Your task to perform on an android device: Clear all items from cart on ebay.com. Search for "usb-c to usb-b" on ebay.com, select the first entry, and add it to the cart. Image 0: 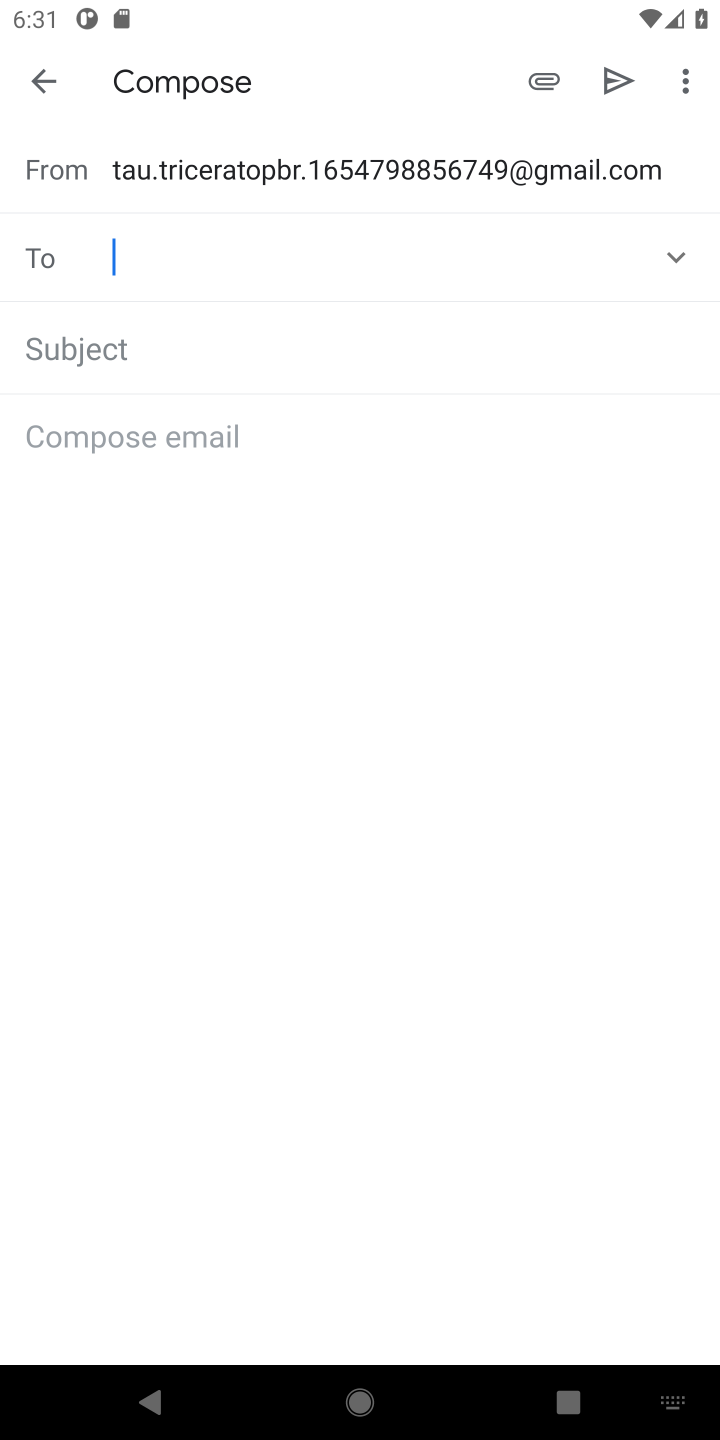
Step 0: press home button
Your task to perform on an android device: Clear all items from cart on ebay.com. Search for "usb-c to usb-b" on ebay.com, select the first entry, and add it to the cart. Image 1: 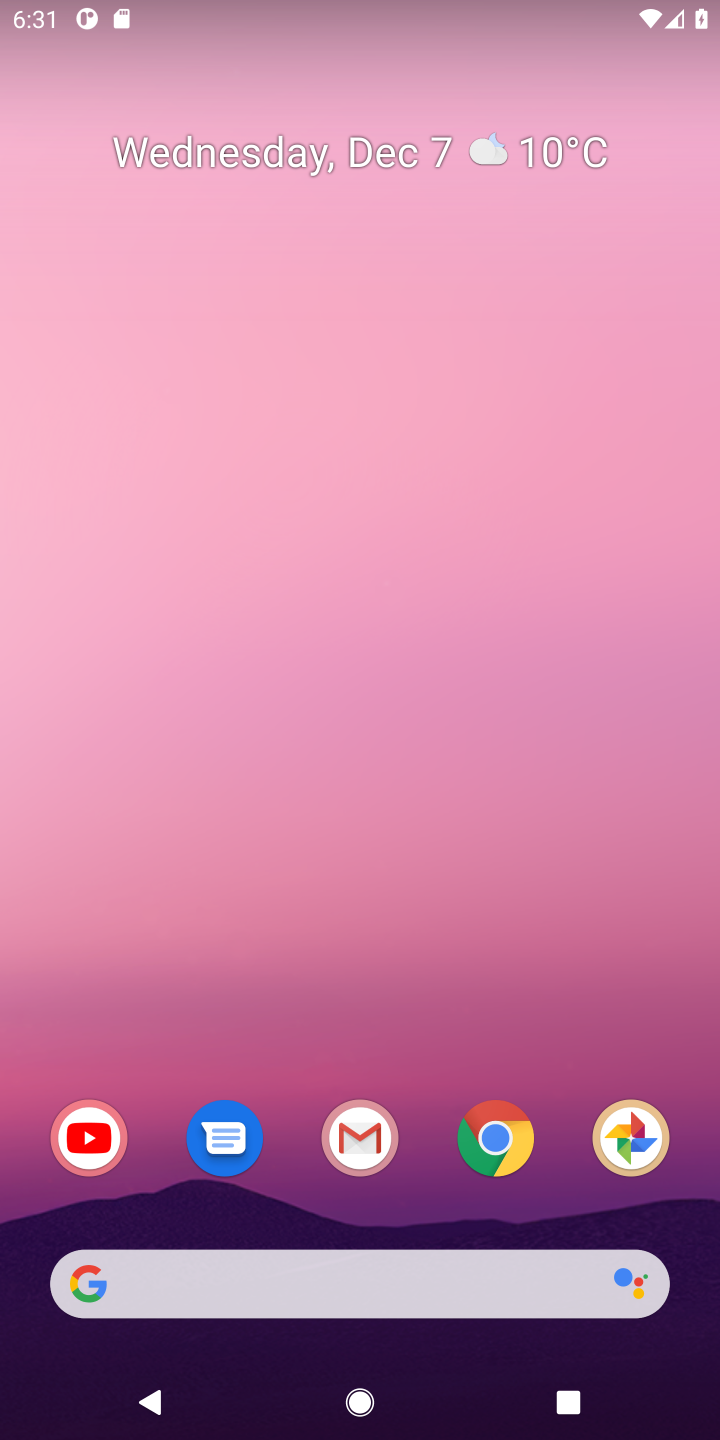
Step 1: click (187, 1290)
Your task to perform on an android device: Clear all items from cart on ebay.com. Search for "usb-c to usb-b" on ebay.com, select the first entry, and add it to the cart. Image 2: 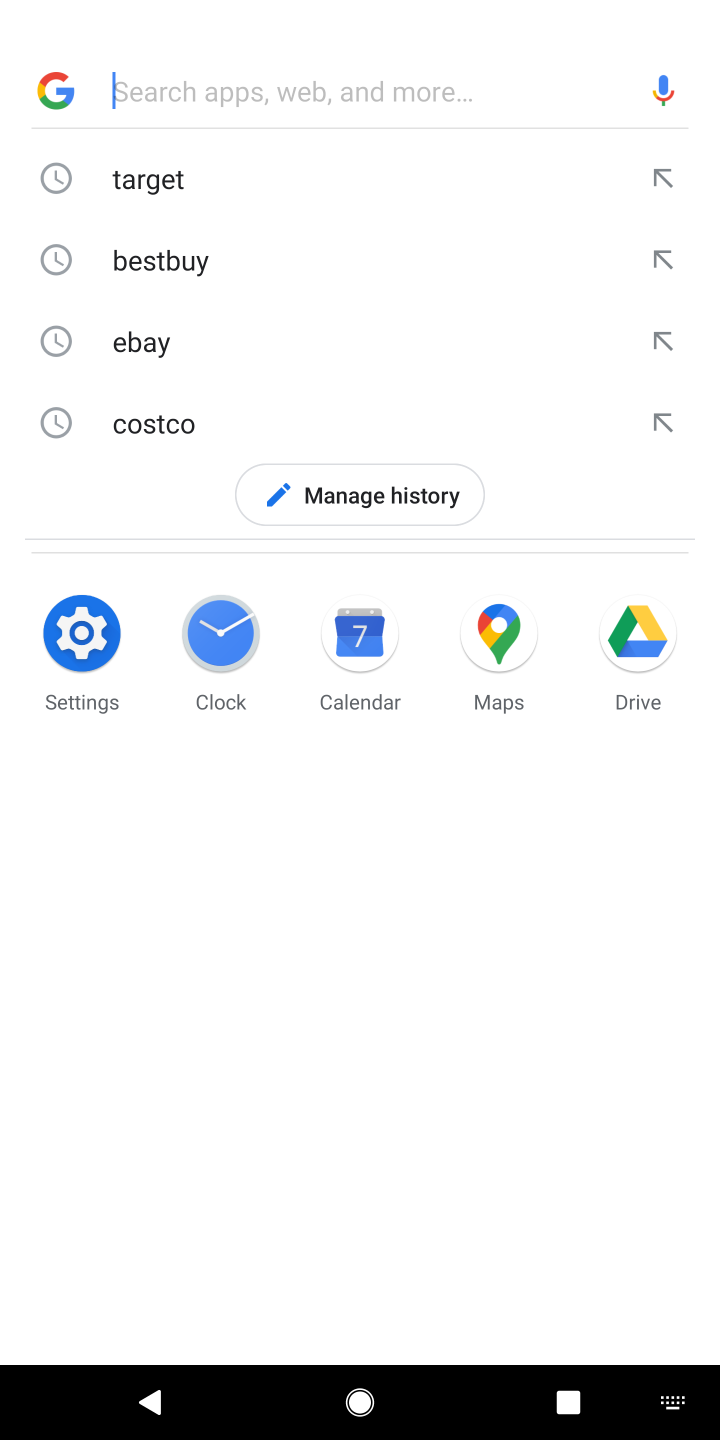
Step 2: type "ebay.com"
Your task to perform on an android device: Clear all items from cart on ebay.com. Search for "usb-c to usb-b" on ebay.com, select the first entry, and add it to the cart. Image 3: 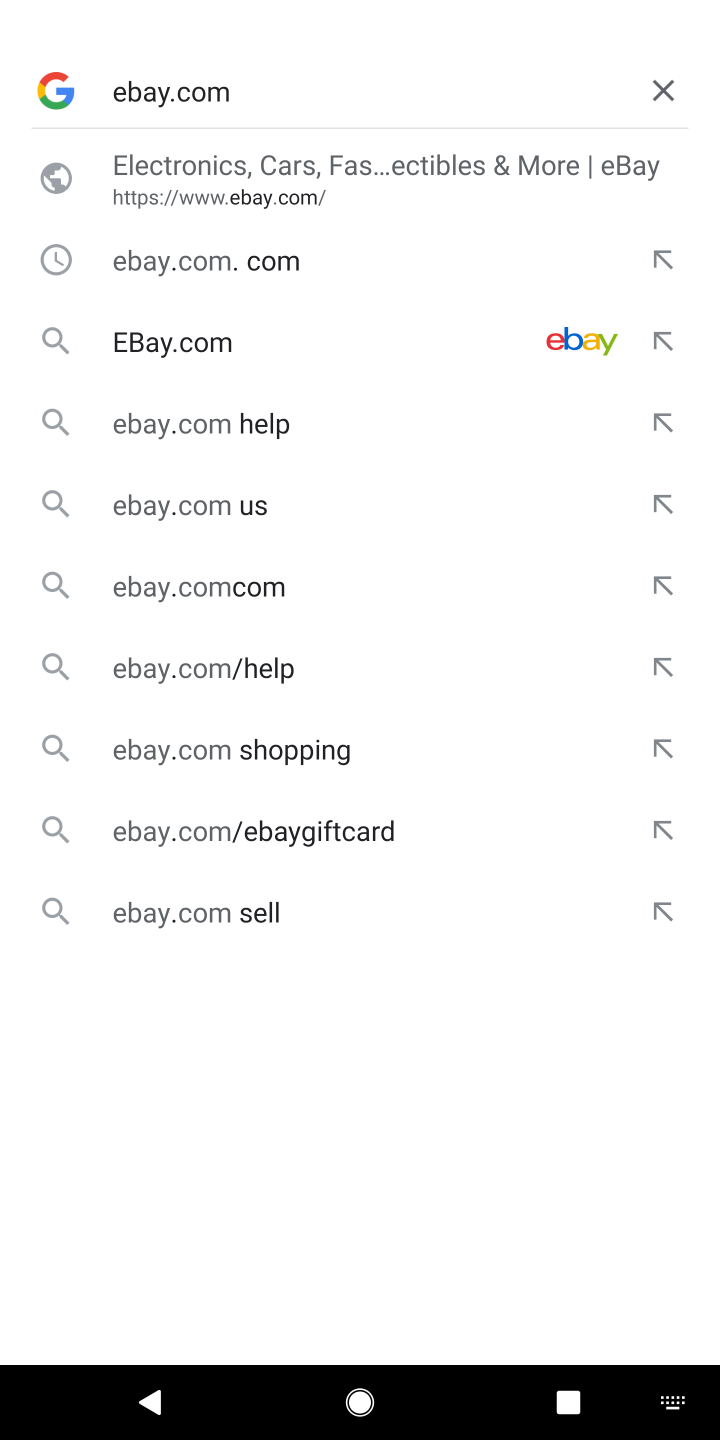
Step 3: press enter
Your task to perform on an android device: Clear all items from cart on ebay.com. Search for "usb-c to usb-b" on ebay.com, select the first entry, and add it to the cart. Image 4: 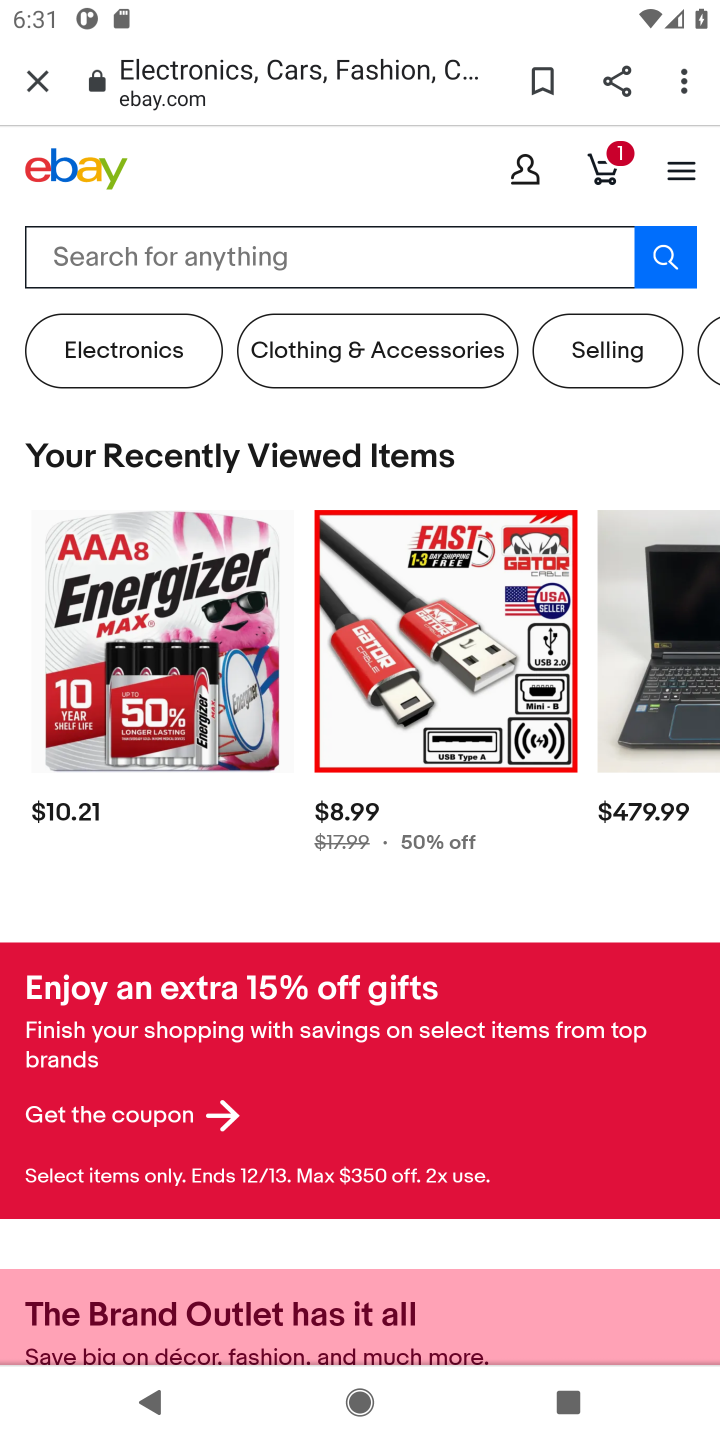
Step 4: click (610, 158)
Your task to perform on an android device: Clear all items from cart on ebay.com. Search for "usb-c to usb-b" on ebay.com, select the first entry, and add it to the cart. Image 5: 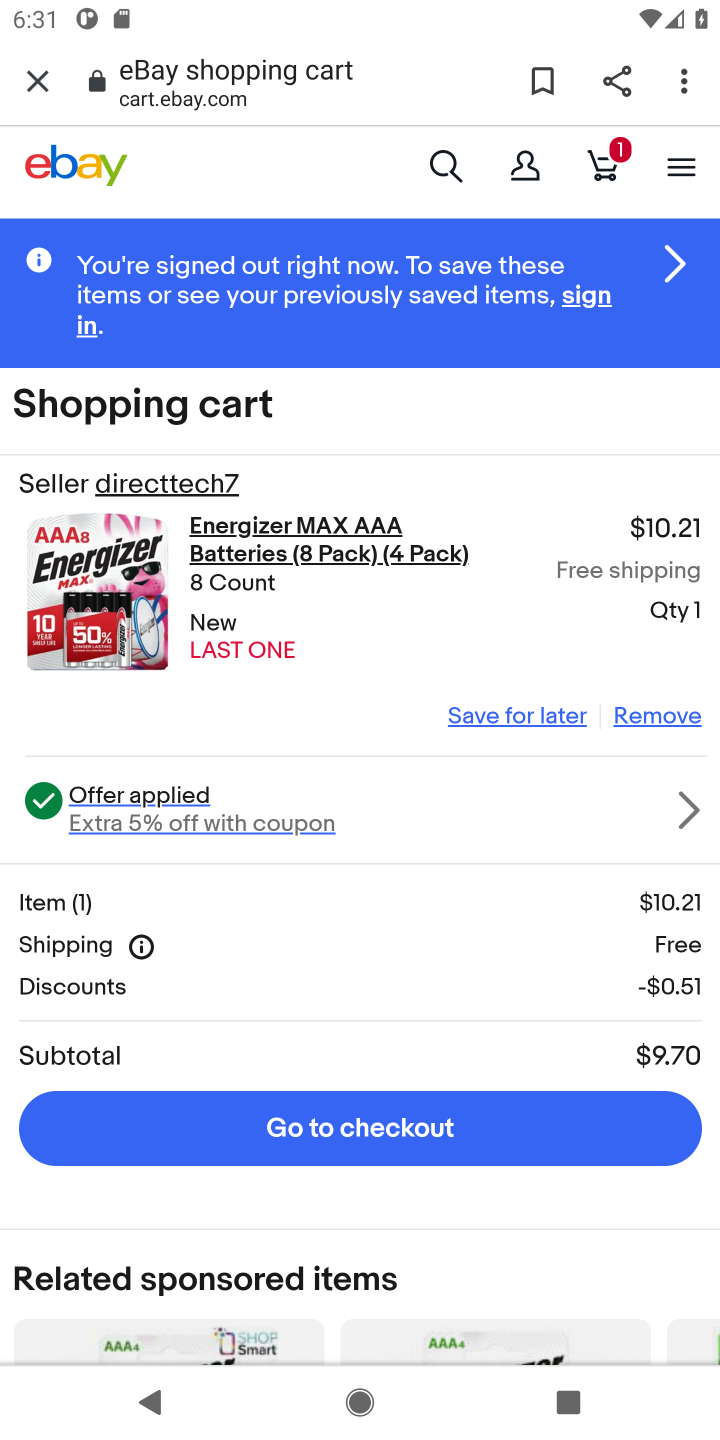
Step 5: click (655, 718)
Your task to perform on an android device: Clear all items from cart on ebay.com. Search for "usb-c to usb-b" on ebay.com, select the first entry, and add it to the cart. Image 6: 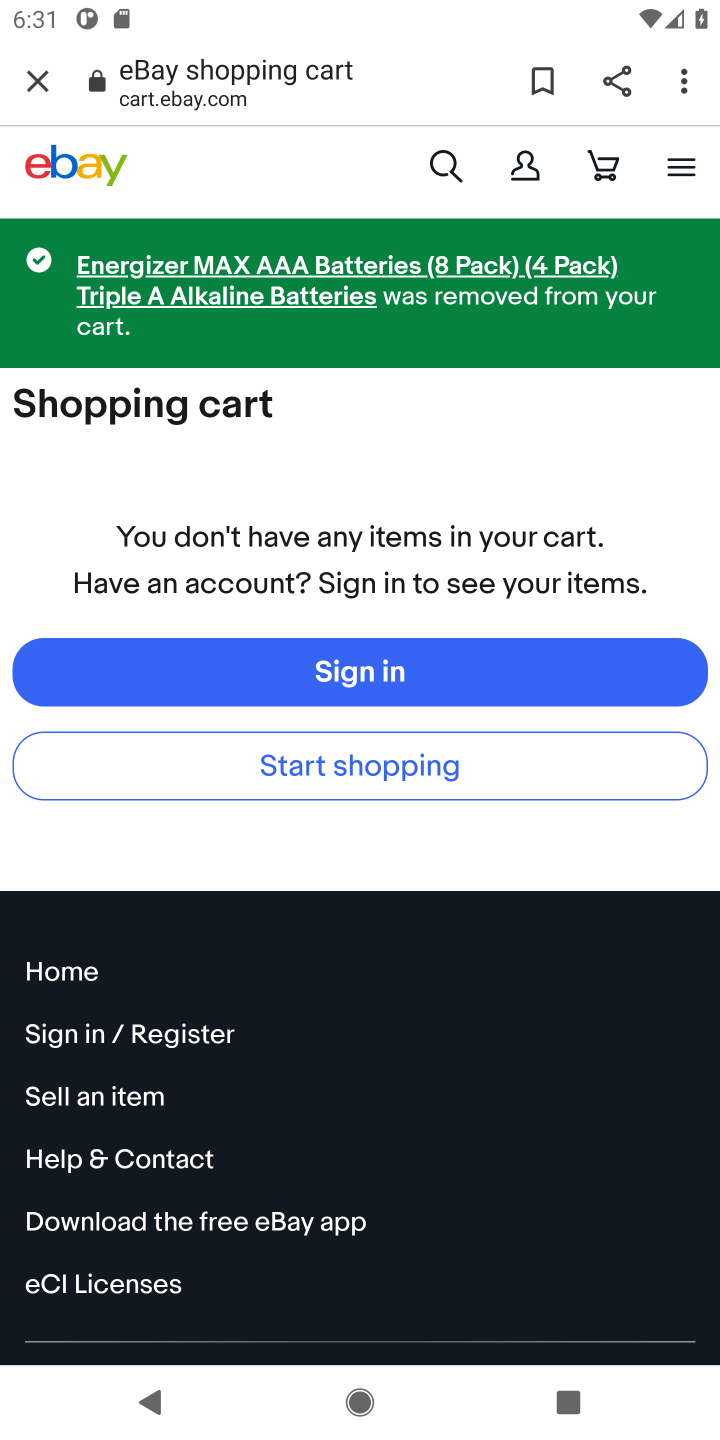
Step 6: click (444, 163)
Your task to perform on an android device: Clear all items from cart on ebay.com. Search for "usb-c to usb-b" on ebay.com, select the first entry, and add it to the cart. Image 7: 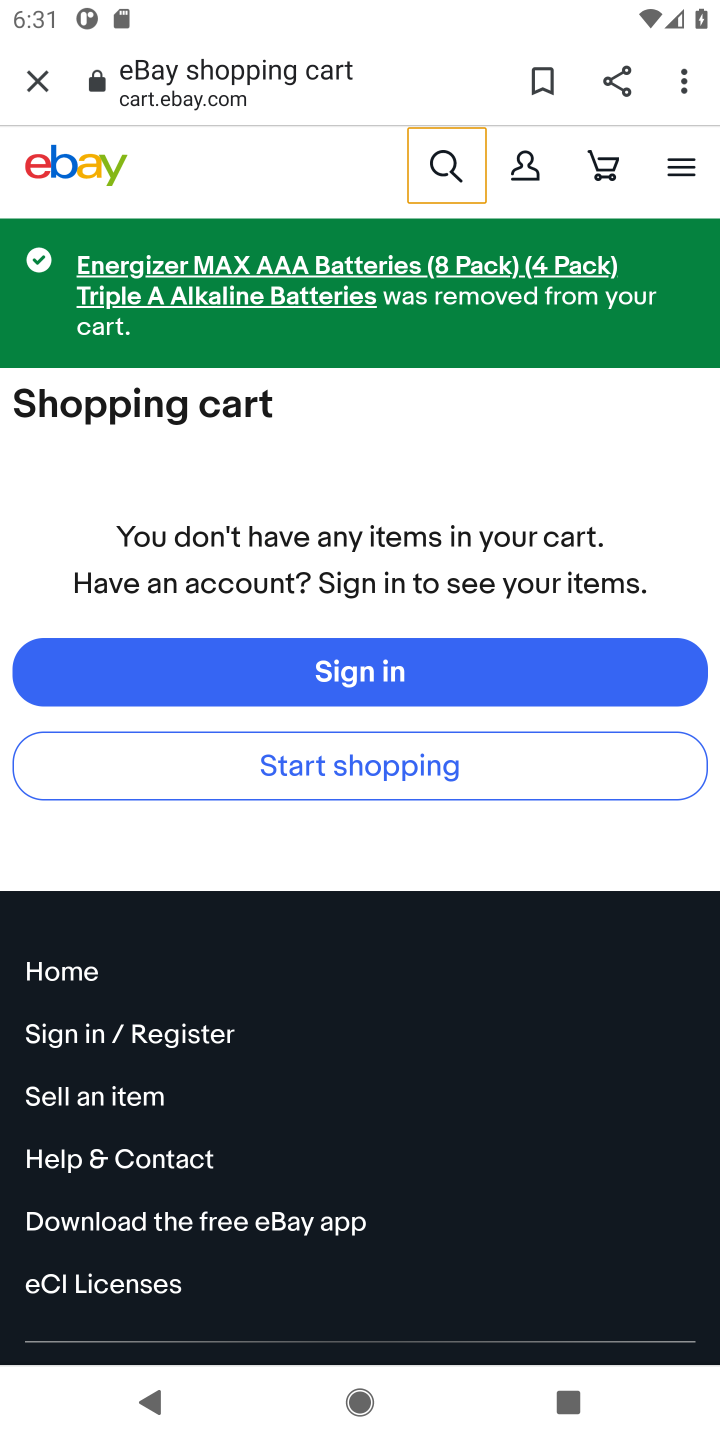
Step 7: click (440, 162)
Your task to perform on an android device: Clear all items from cart on ebay.com. Search for "usb-c to usb-b" on ebay.com, select the first entry, and add it to the cart. Image 8: 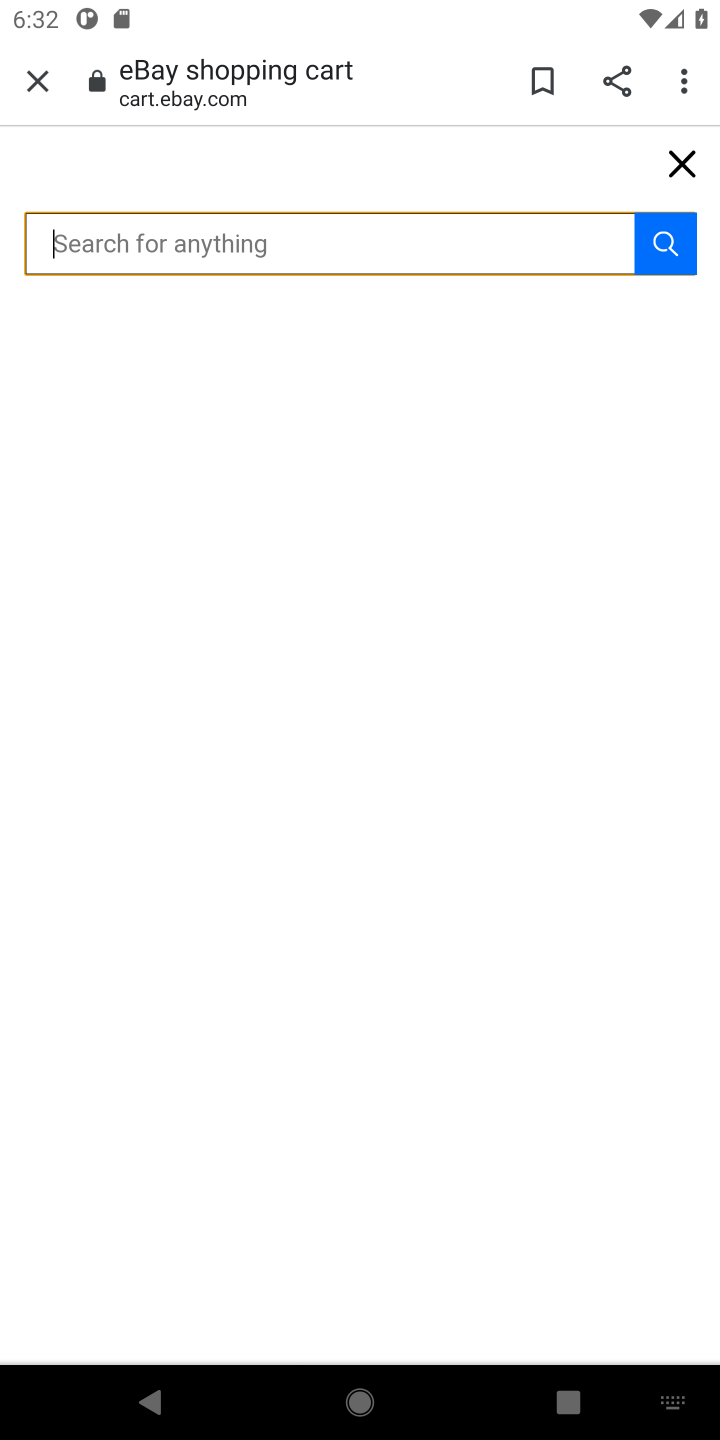
Step 8: type "usb-c to usb-b"
Your task to perform on an android device: Clear all items from cart on ebay.com. Search for "usb-c to usb-b" on ebay.com, select the first entry, and add it to the cart. Image 9: 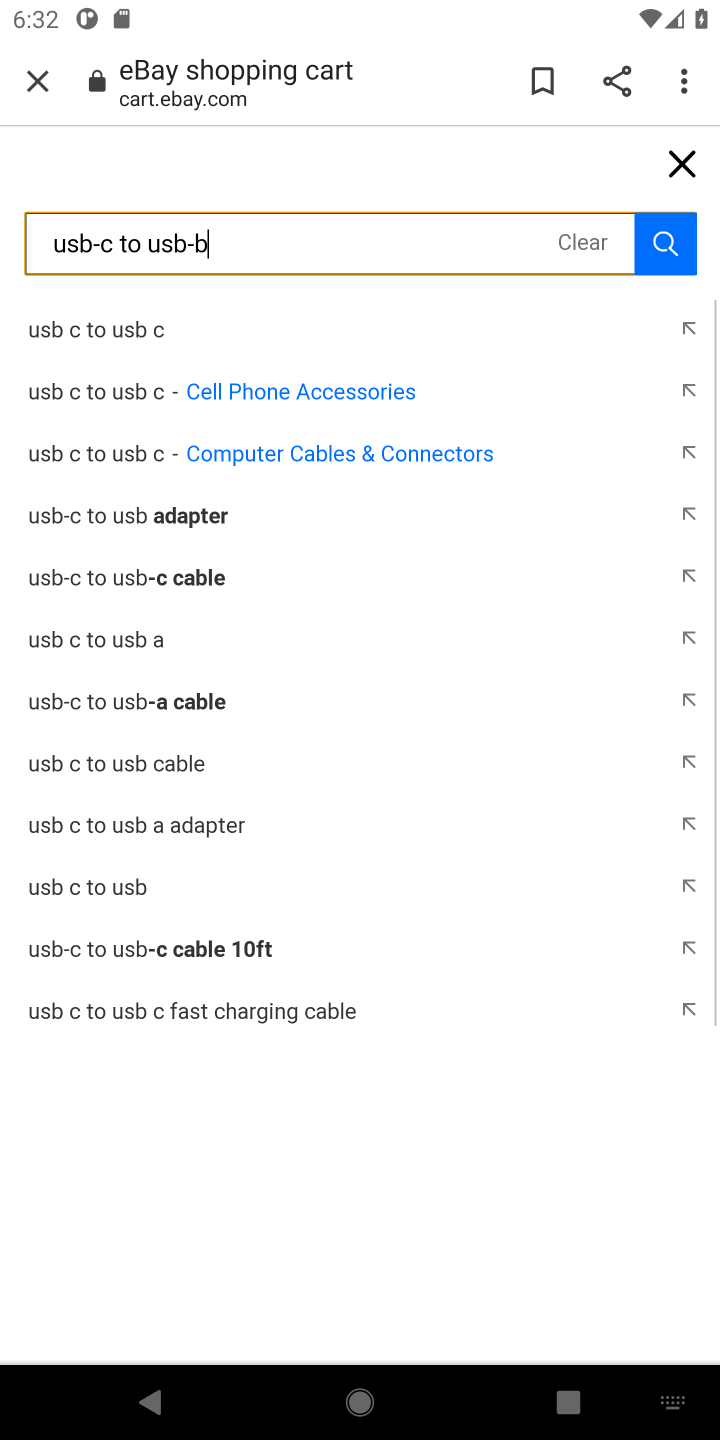
Step 9: press enter
Your task to perform on an android device: Clear all items from cart on ebay.com. Search for "usb-c to usb-b" on ebay.com, select the first entry, and add it to the cart. Image 10: 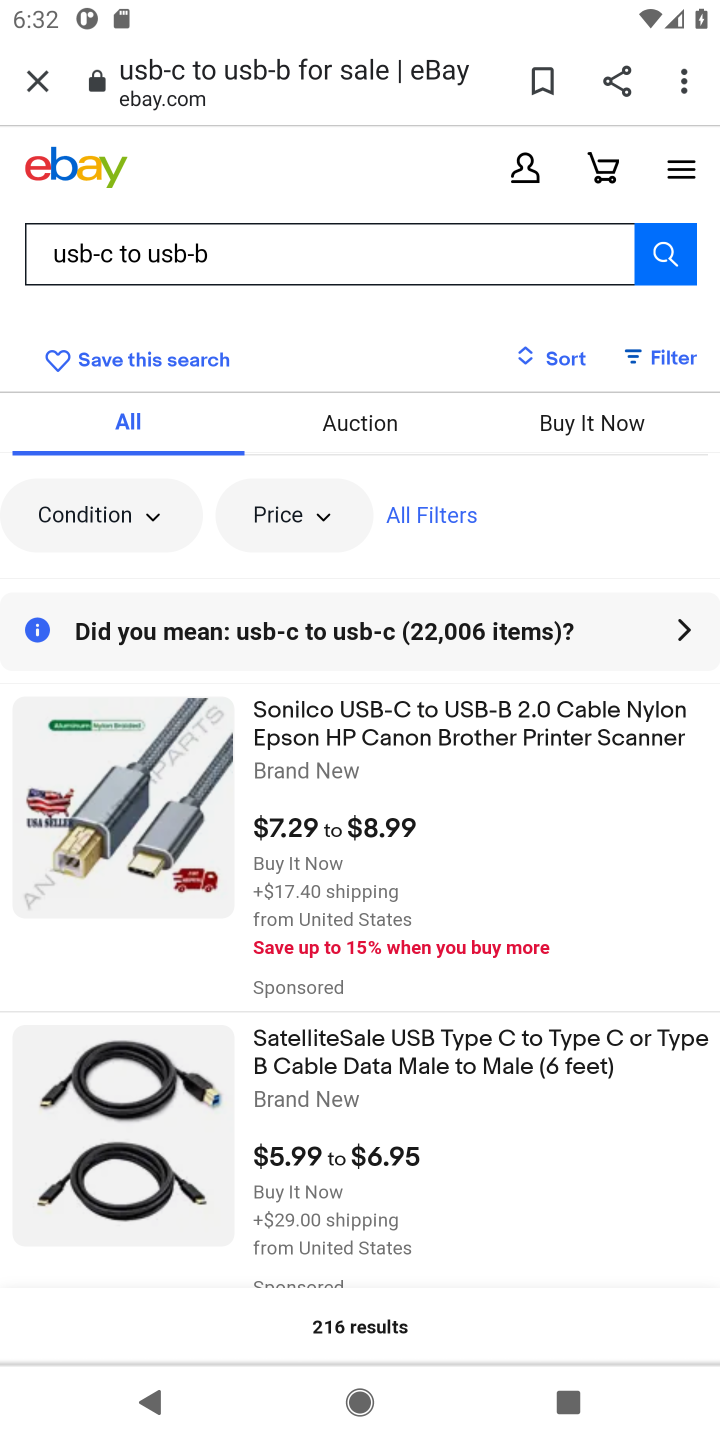
Step 10: click (397, 733)
Your task to perform on an android device: Clear all items from cart on ebay.com. Search for "usb-c to usb-b" on ebay.com, select the first entry, and add it to the cart. Image 11: 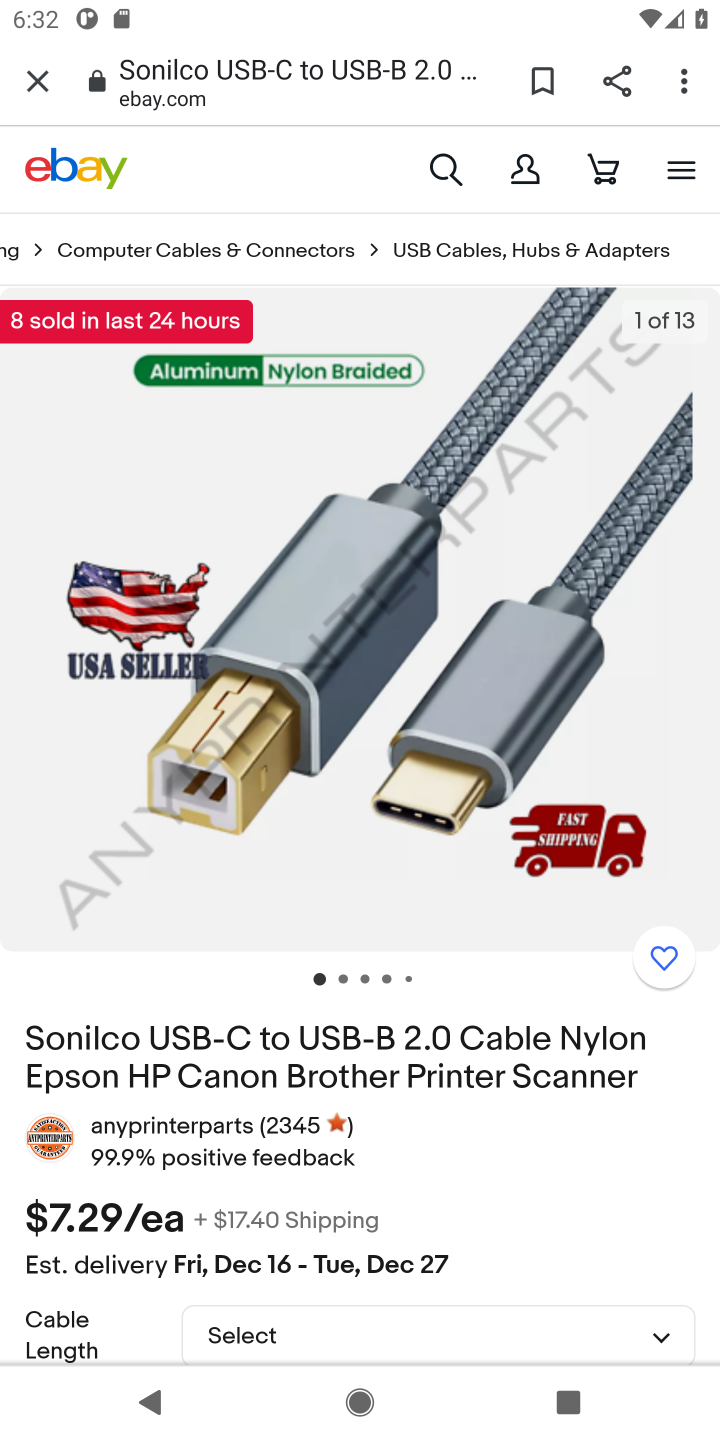
Step 11: drag from (415, 1171) to (480, 592)
Your task to perform on an android device: Clear all items from cart on ebay.com. Search for "usb-c to usb-b" on ebay.com, select the first entry, and add it to the cart. Image 12: 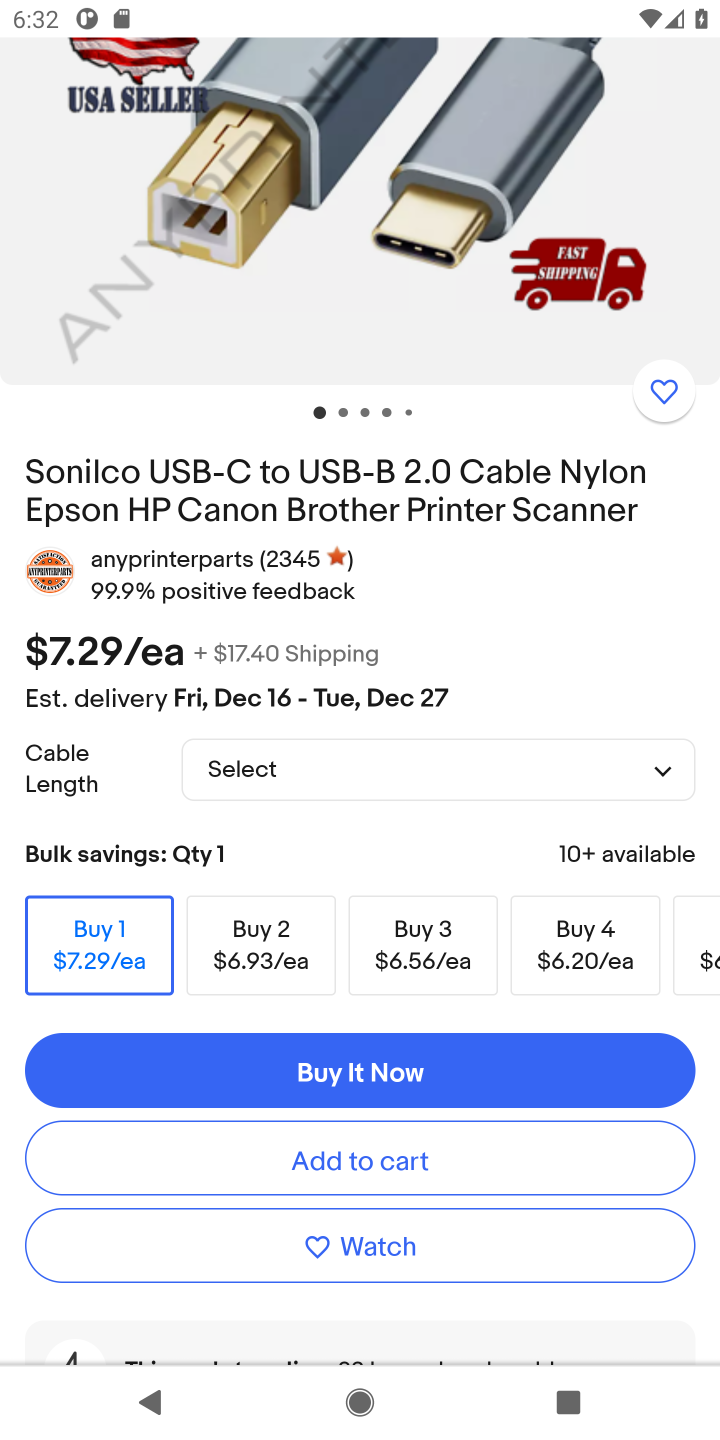
Step 12: drag from (428, 1080) to (453, 645)
Your task to perform on an android device: Clear all items from cart on ebay.com. Search for "usb-c to usb-b" on ebay.com, select the first entry, and add it to the cart. Image 13: 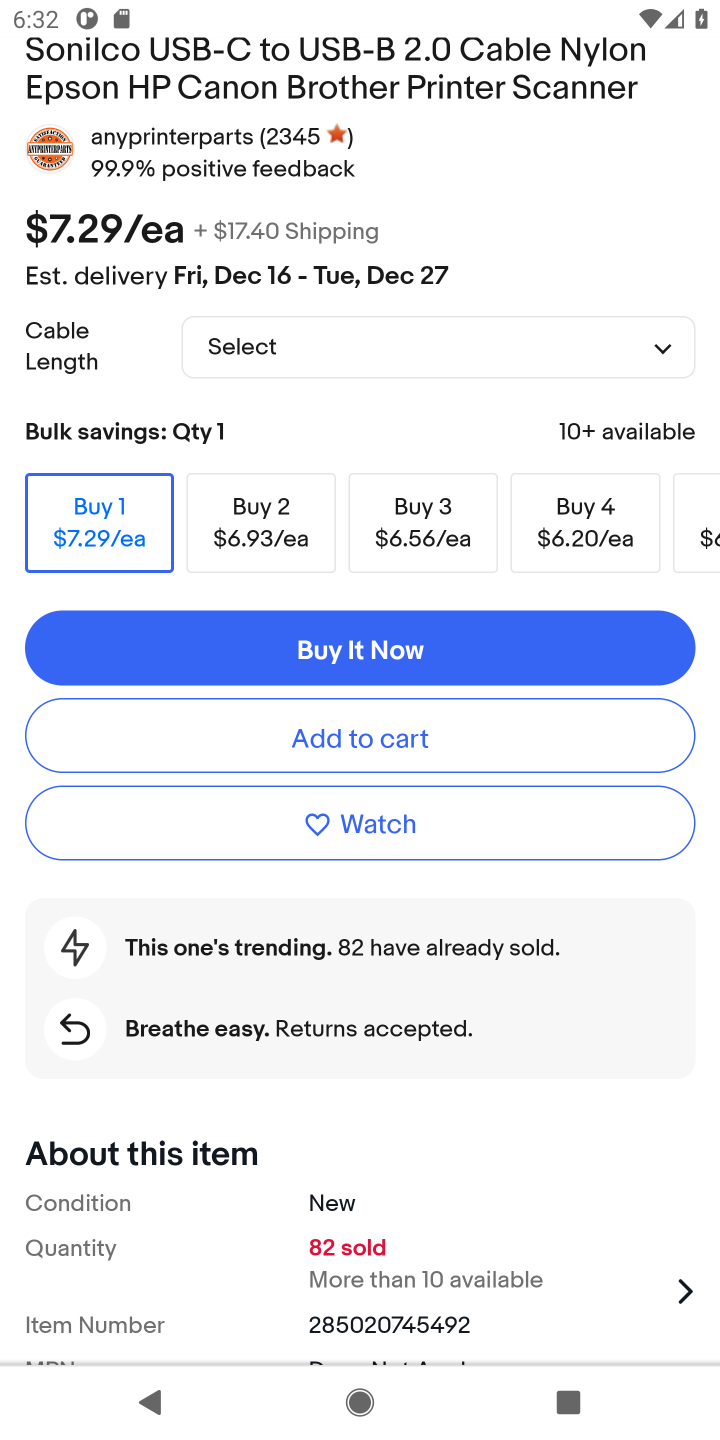
Step 13: click (405, 748)
Your task to perform on an android device: Clear all items from cart on ebay.com. Search for "usb-c to usb-b" on ebay.com, select the first entry, and add it to the cart. Image 14: 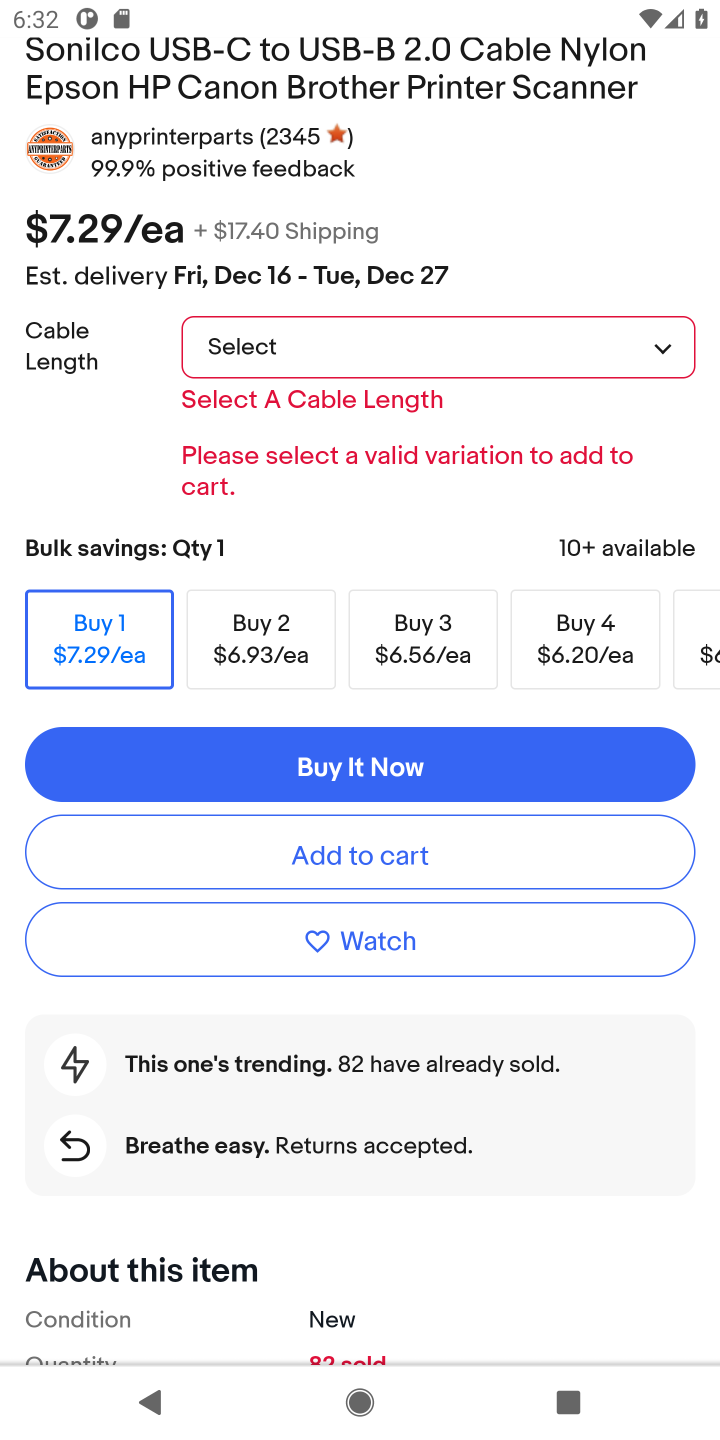
Step 14: click (381, 855)
Your task to perform on an android device: Clear all items from cart on ebay.com. Search for "usb-c to usb-b" on ebay.com, select the first entry, and add it to the cart. Image 15: 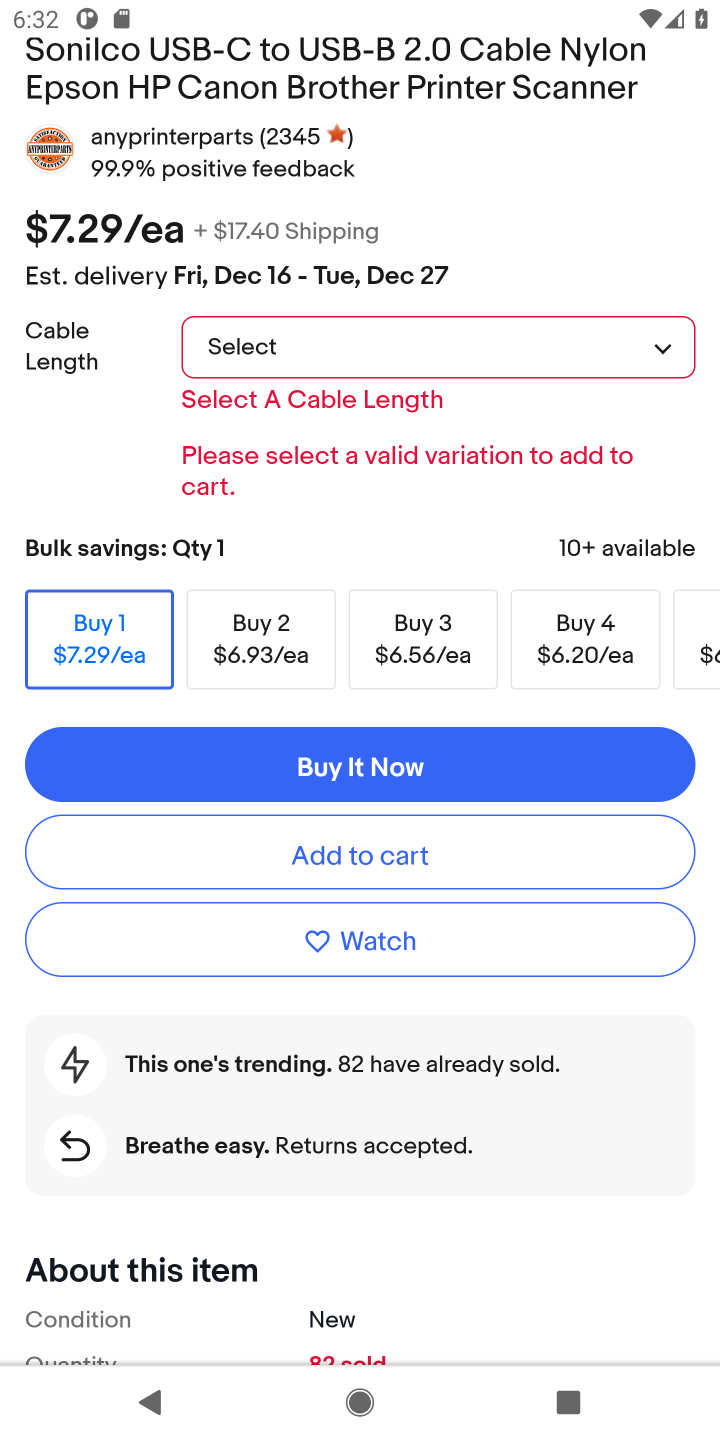
Step 15: click (671, 348)
Your task to perform on an android device: Clear all items from cart on ebay.com. Search for "usb-c to usb-b" on ebay.com, select the first entry, and add it to the cart. Image 16: 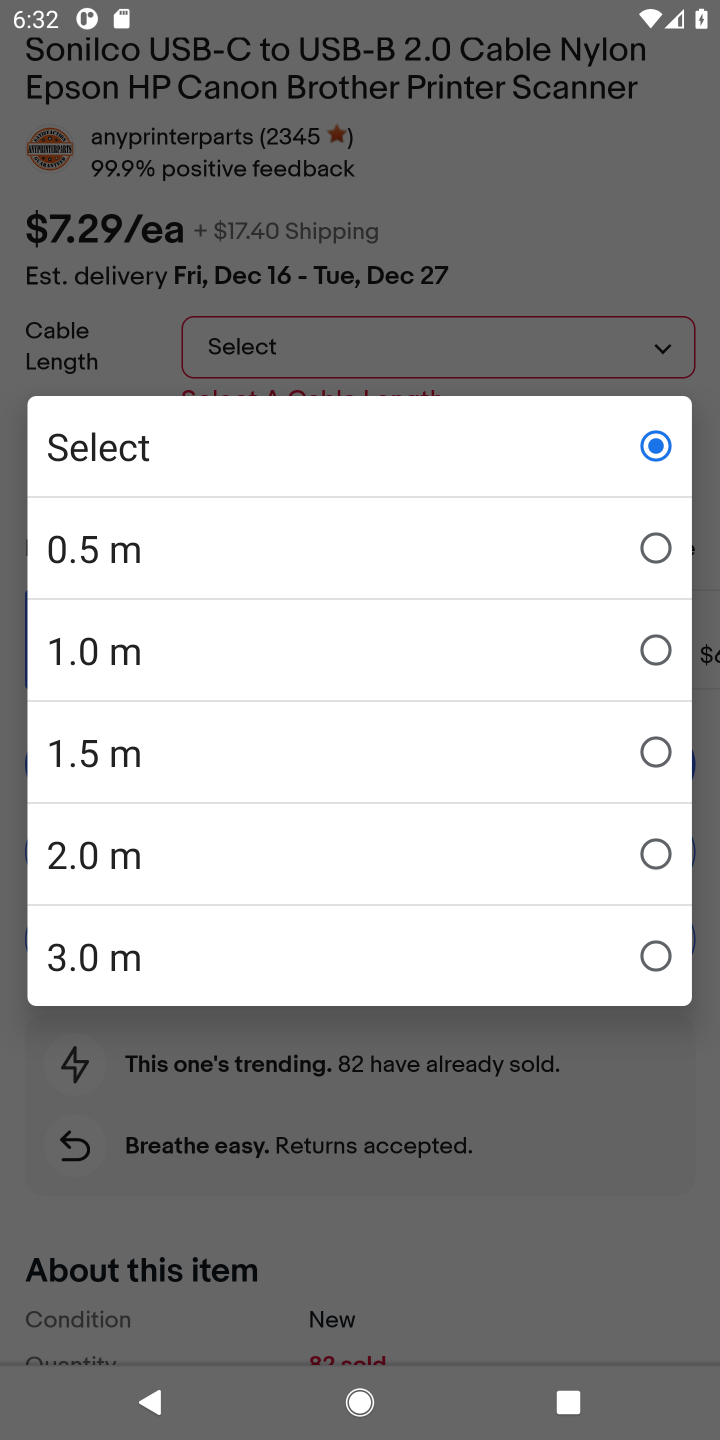
Step 16: click (648, 652)
Your task to perform on an android device: Clear all items from cart on ebay.com. Search for "usb-c to usb-b" on ebay.com, select the first entry, and add it to the cart. Image 17: 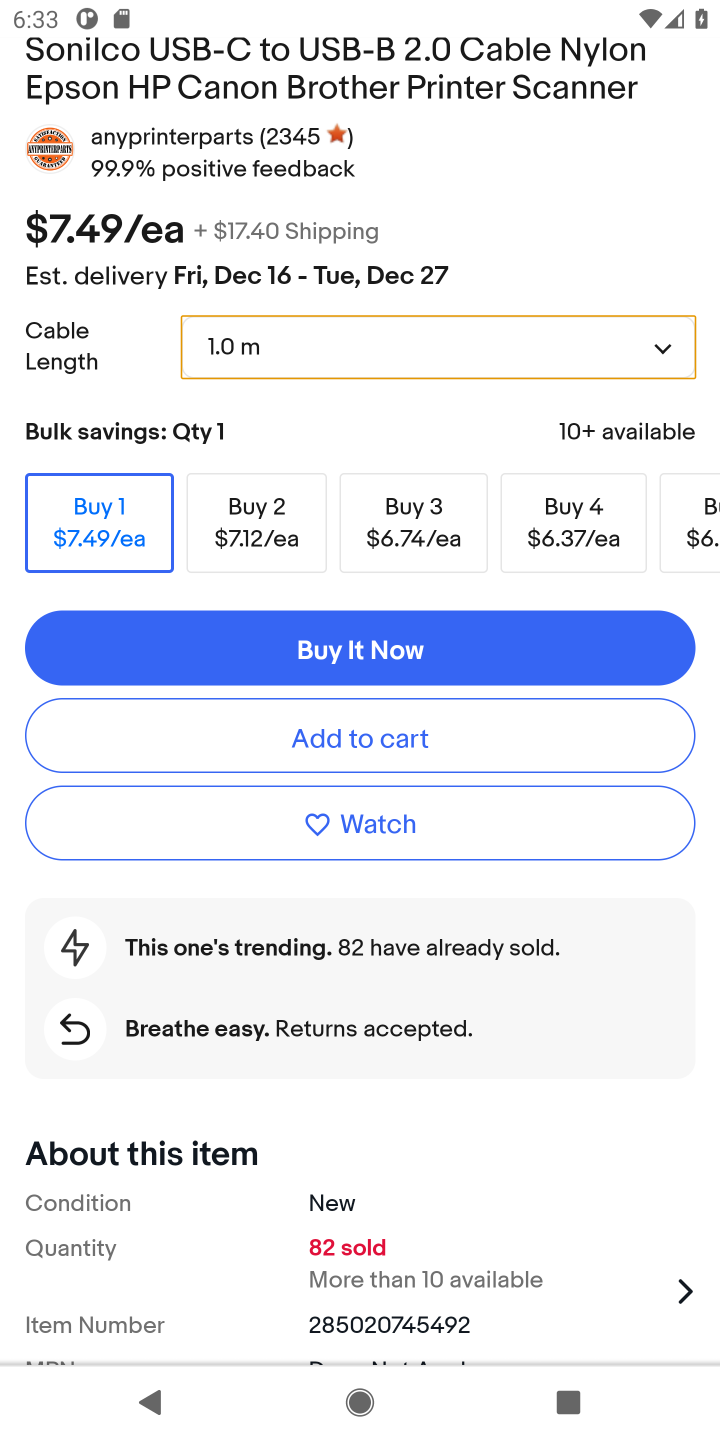
Step 17: click (388, 740)
Your task to perform on an android device: Clear all items from cart on ebay.com. Search for "usb-c to usb-b" on ebay.com, select the first entry, and add it to the cart. Image 18: 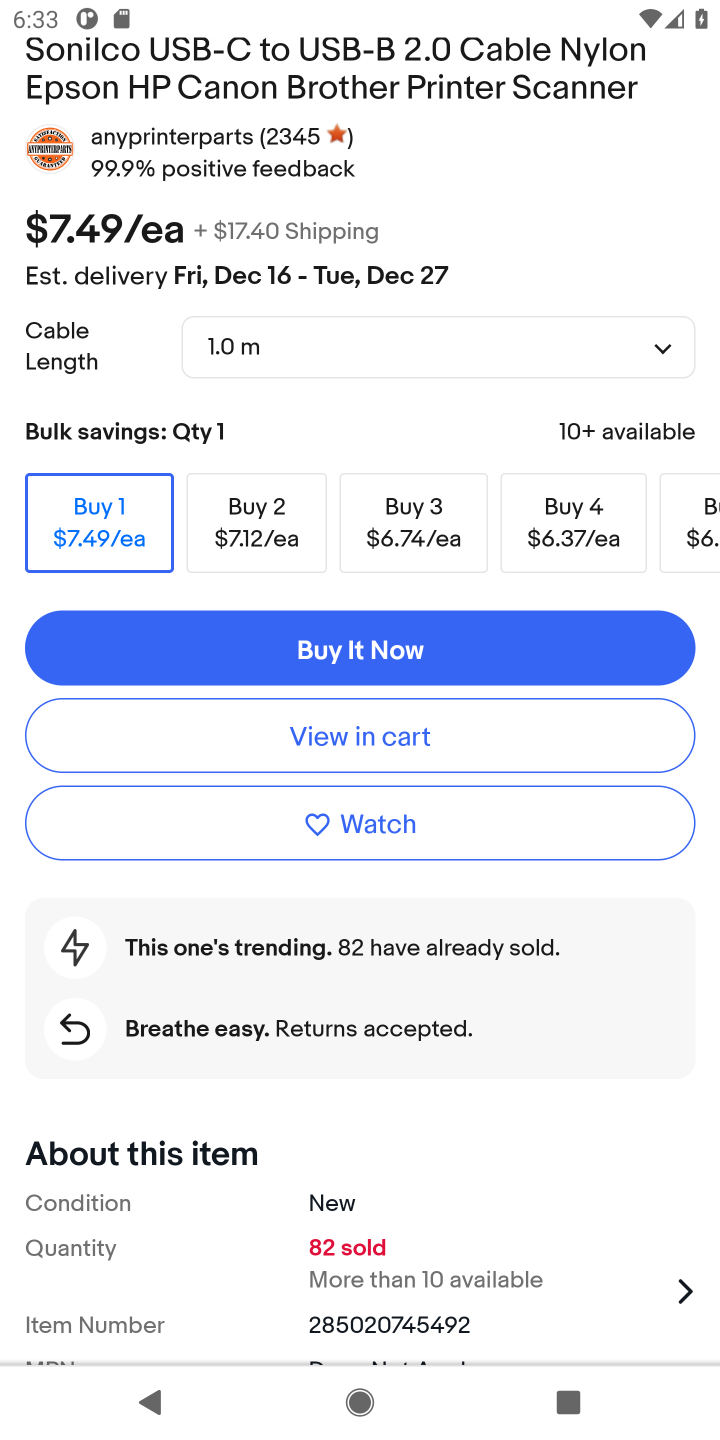
Step 18: task complete